Your task to perform on an android device: Check the news Image 0: 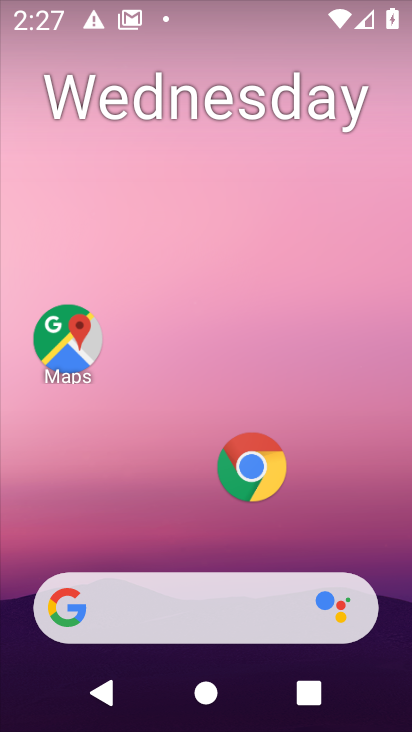
Step 0: drag from (203, 726) to (75, 714)
Your task to perform on an android device: Check the news Image 1: 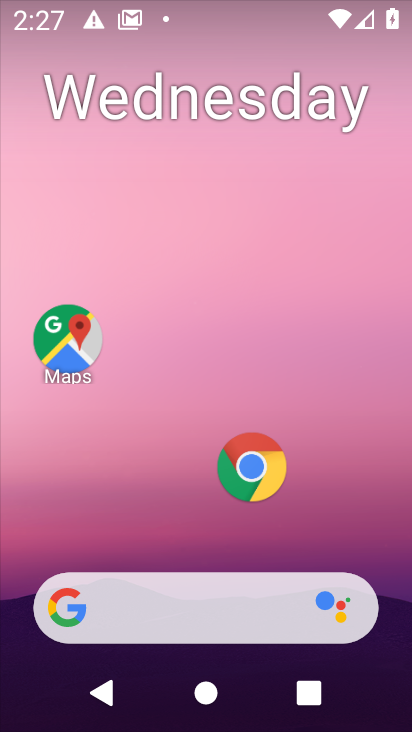
Step 1: click (173, 616)
Your task to perform on an android device: Check the news Image 2: 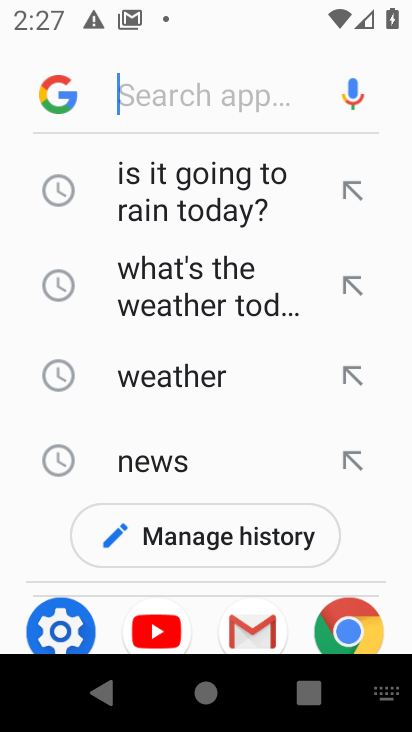
Step 2: type " Check the news"
Your task to perform on an android device: Check the news Image 3: 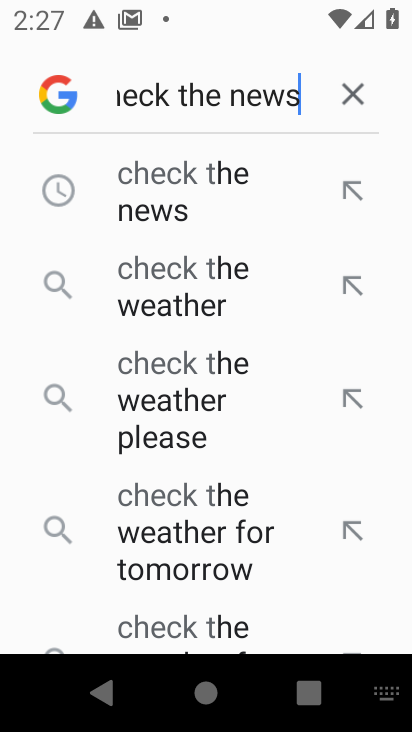
Step 3: press enter
Your task to perform on an android device: Check the news Image 4: 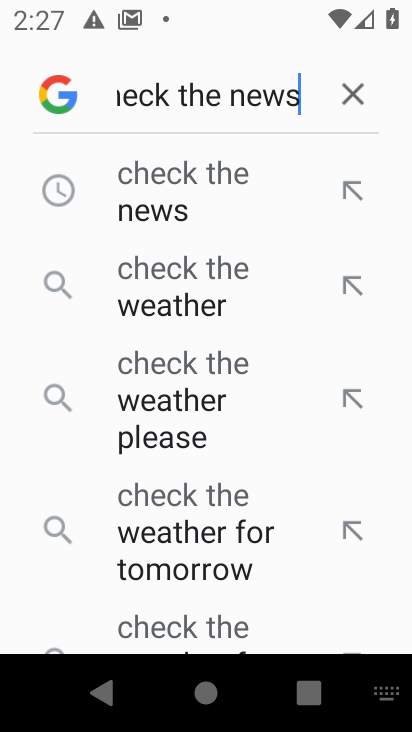
Step 4: type ""
Your task to perform on an android device: Check the news Image 5: 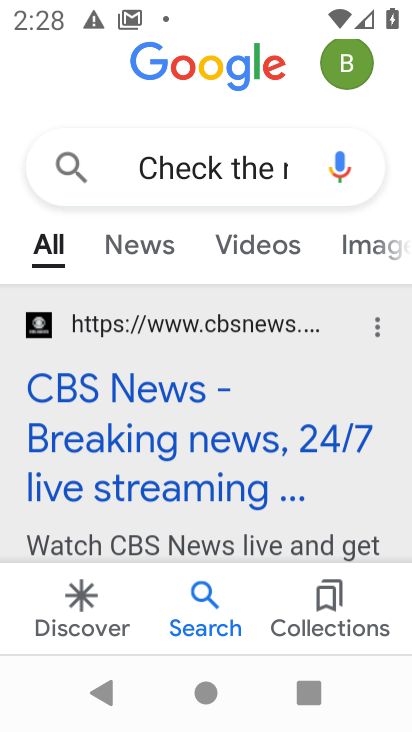
Step 5: task complete